Your task to perform on an android device: turn on sleep mode Image 0: 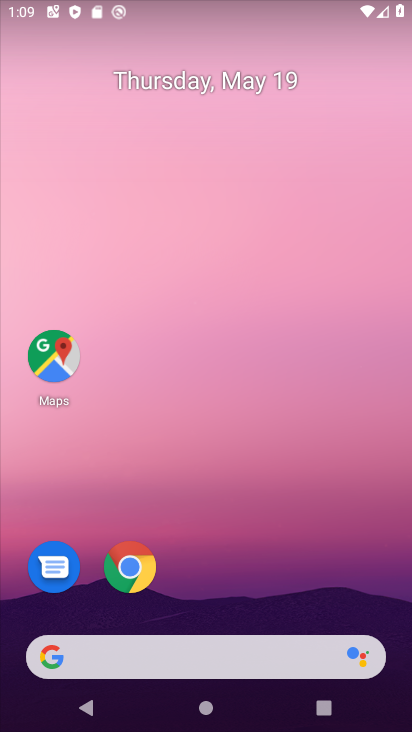
Step 0: drag from (32, 519) to (171, 169)
Your task to perform on an android device: turn on sleep mode Image 1: 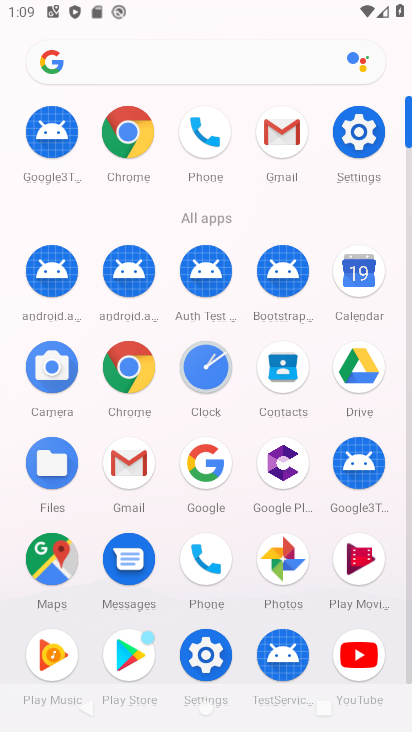
Step 1: click (361, 126)
Your task to perform on an android device: turn on sleep mode Image 2: 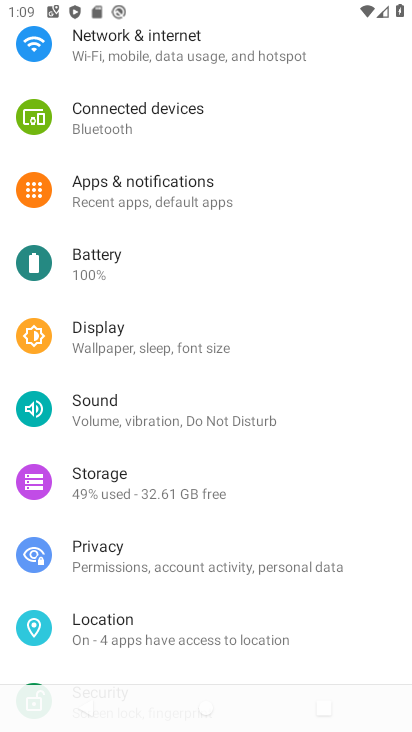
Step 2: drag from (59, 544) to (200, 69)
Your task to perform on an android device: turn on sleep mode Image 3: 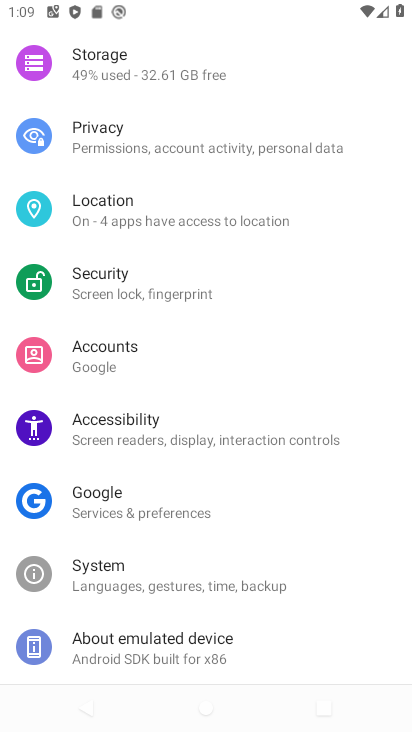
Step 3: drag from (153, 105) to (143, 469)
Your task to perform on an android device: turn on sleep mode Image 4: 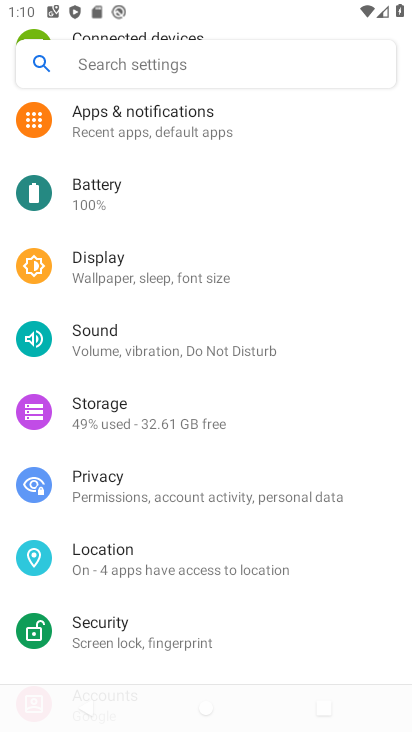
Step 4: click (165, 284)
Your task to perform on an android device: turn on sleep mode Image 5: 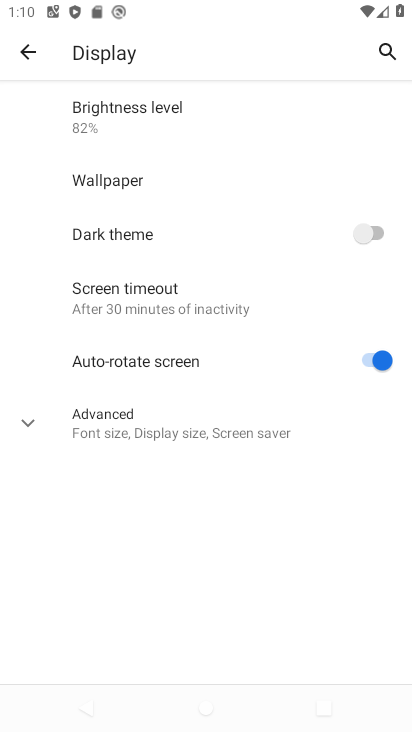
Step 5: task complete